Your task to perform on an android device: Go to accessibility settings Image 0: 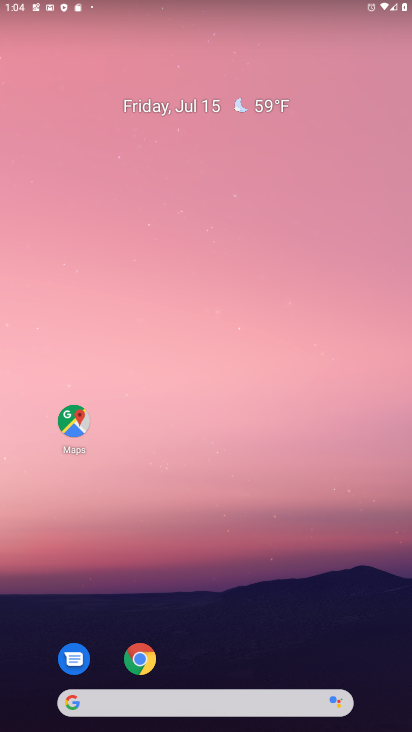
Step 0: drag from (223, 727) to (233, 117)
Your task to perform on an android device: Go to accessibility settings Image 1: 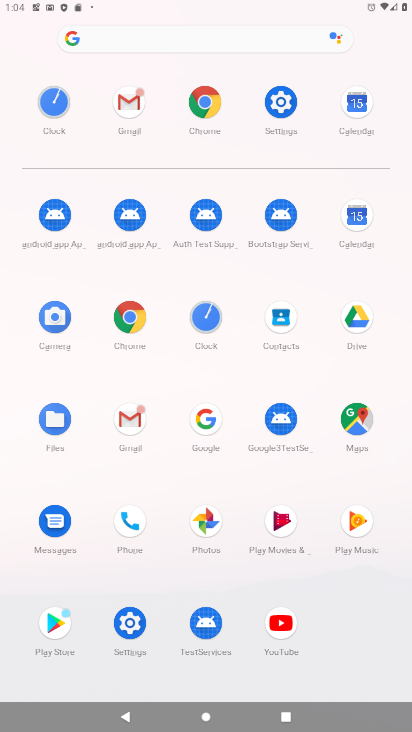
Step 1: click (288, 101)
Your task to perform on an android device: Go to accessibility settings Image 2: 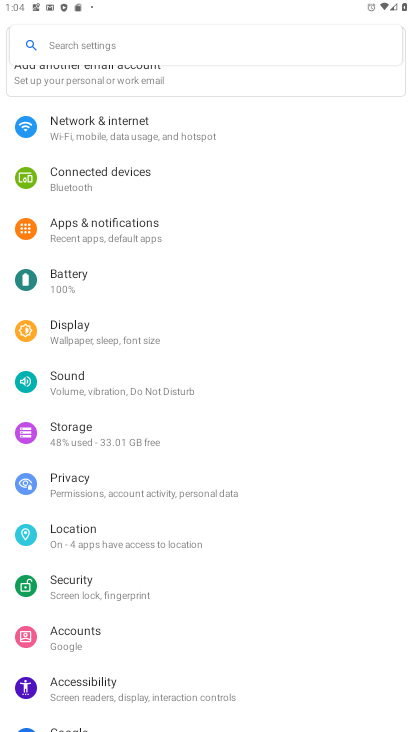
Step 2: click (88, 676)
Your task to perform on an android device: Go to accessibility settings Image 3: 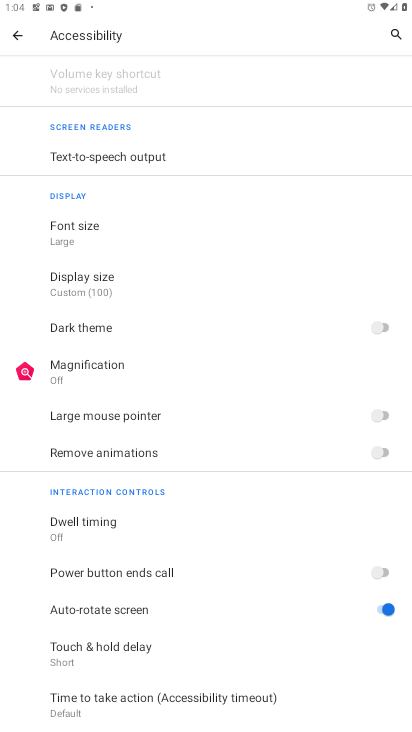
Step 3: task complete